Your task to perform on an android device: Is it going to rain this weekend? Image 0: 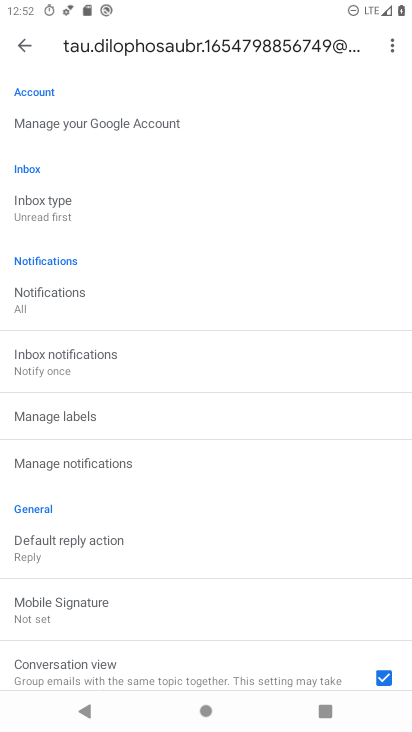
Step 0: press home button
Your task to perform on an android device: Is it going to rain this weekend? Image 1: 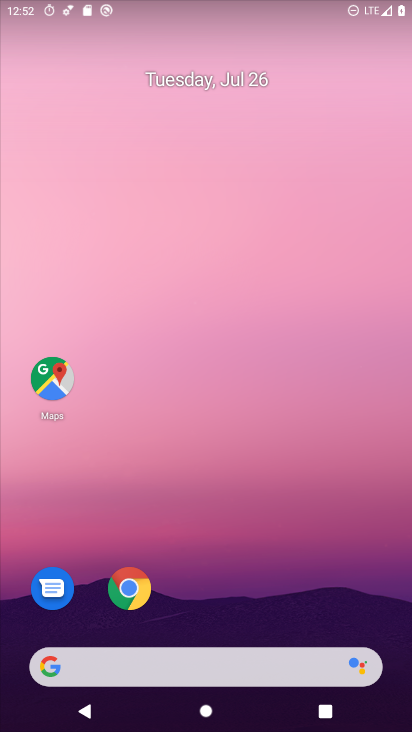
Step 1: drag from (257, 585) to (249, 156)
Your task to perform on an android device: Is it going to rain this weekend? Image 2: 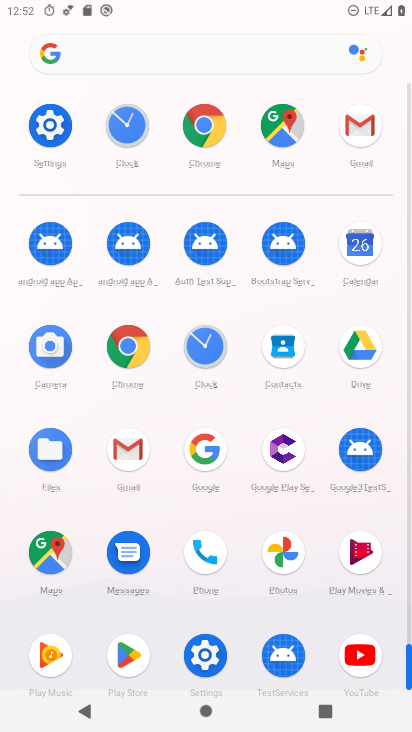
Step 2: click (130, 352)
Your task to perform on an android device: Is it going to rain this weekend? Image 3: 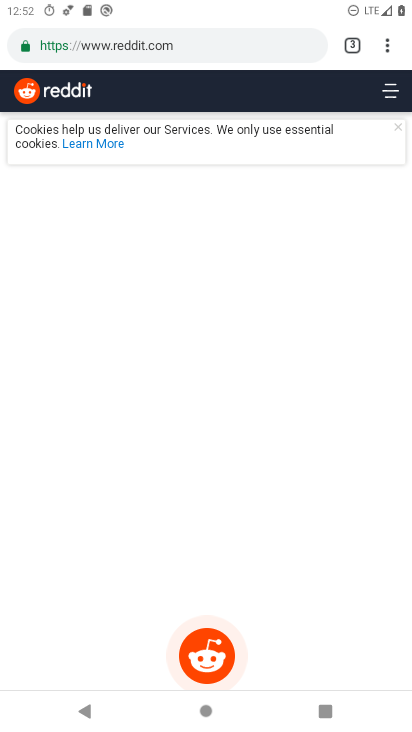
Step 3: click (349, 53)
Your task to perform on an android device: Is it going to rain this weekend? Image 4: 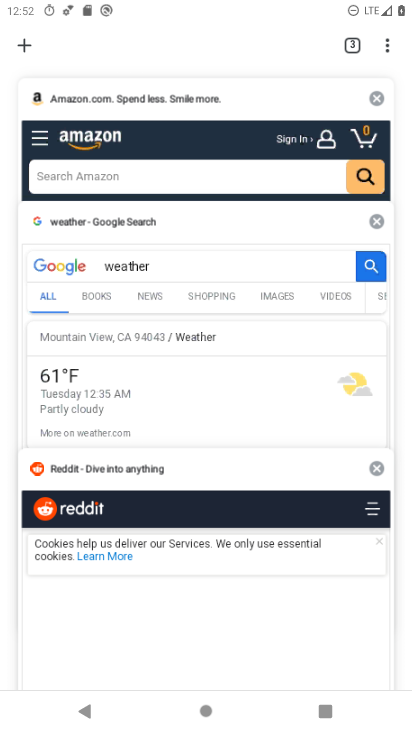
Step 4: click (31, 43)
Your task to perform on an android device: Is it going to rain this weekend? Image 5: 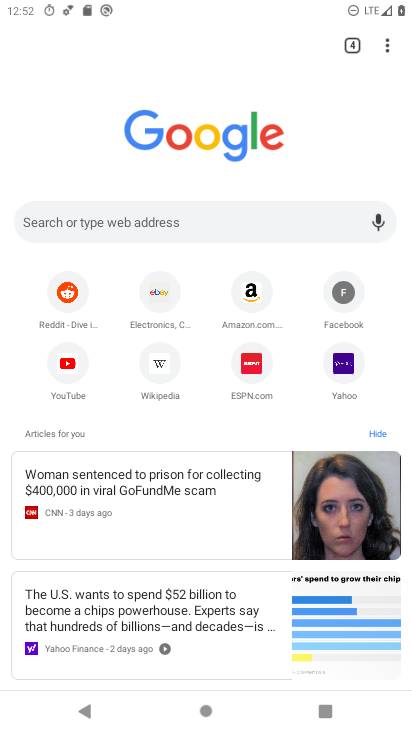
Step 5: click (125, 218)
Your task to perform on an android device: Is it going to rain this weekend? Image 6: 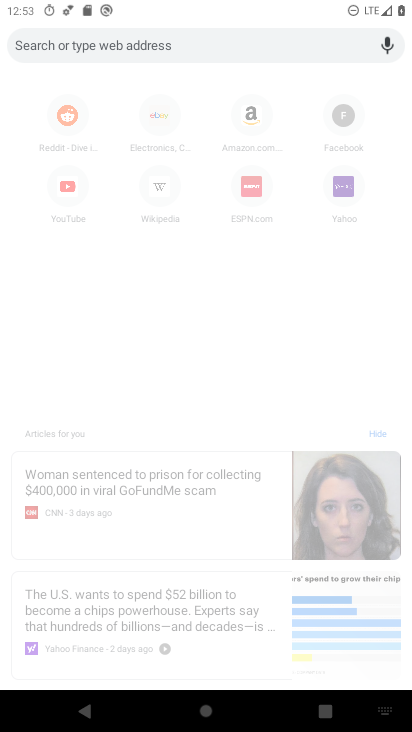
Step 6: type "Is it going to rain this weekend?"
Your task to perform on an android device: Is it going to rain this weekend? Image 7: 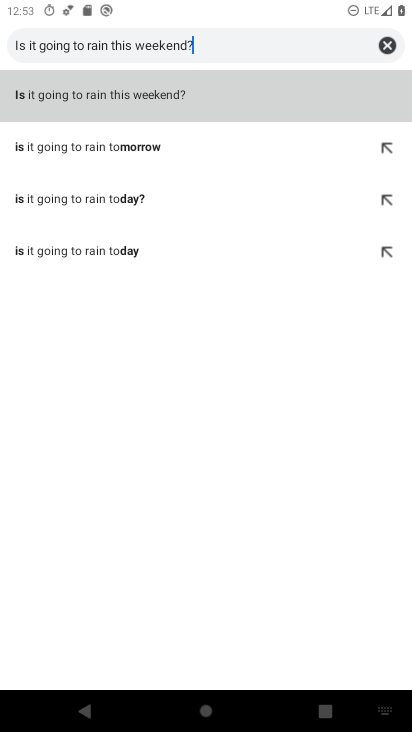
Step 7: type ""
Your task to perform on an android device: Is it going to rain this weekend? Image 8: 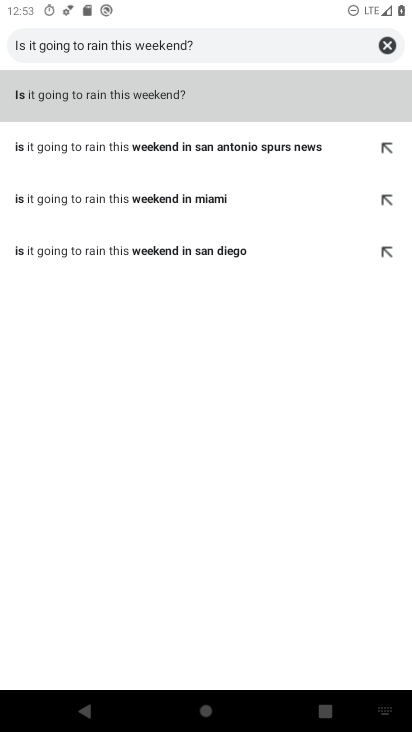
Step 8: click (209, 110)
Your task to perform on an android device: Is it going to rain this weekend? Image 9: 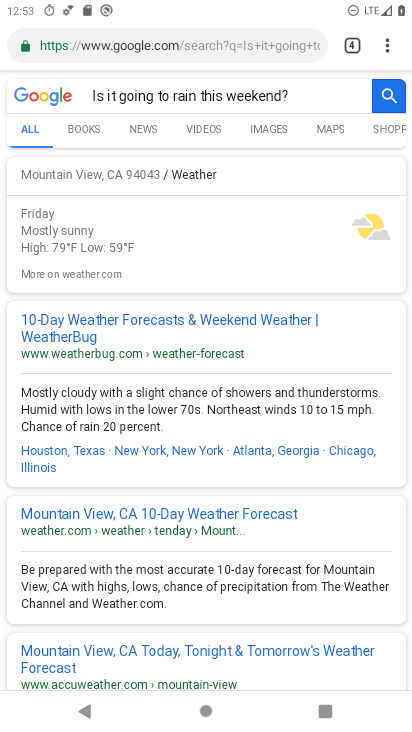
Step 9: task complete